Your task to perform on an android device: Open Reddit.com Image 0: 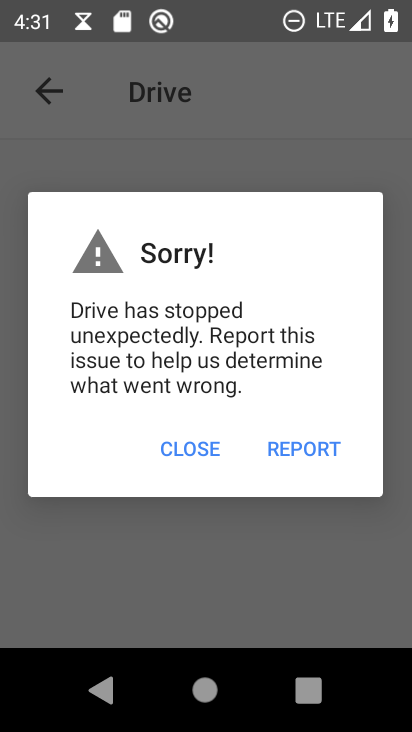
Step 0: press home button
Your task to perform on an android device: Open Reddit.com Image 1: 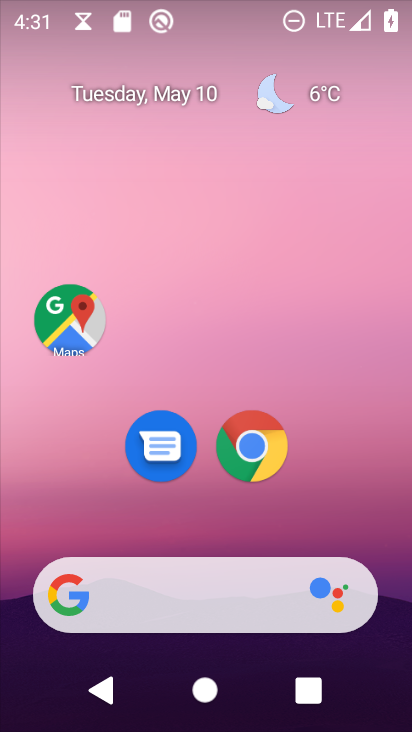
Step 1: click (265, 471)
Your task to perform on an android device: Open Reddit.com Image 2: 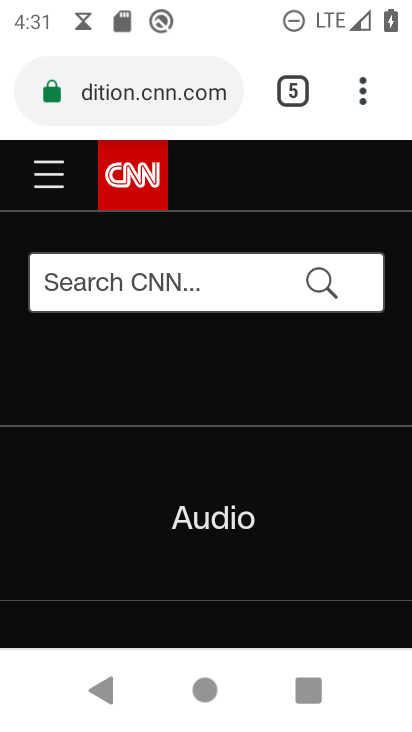
Step 2: click (294, 87)
Your task to perform on an android device: Open Reddit.com Image 3: 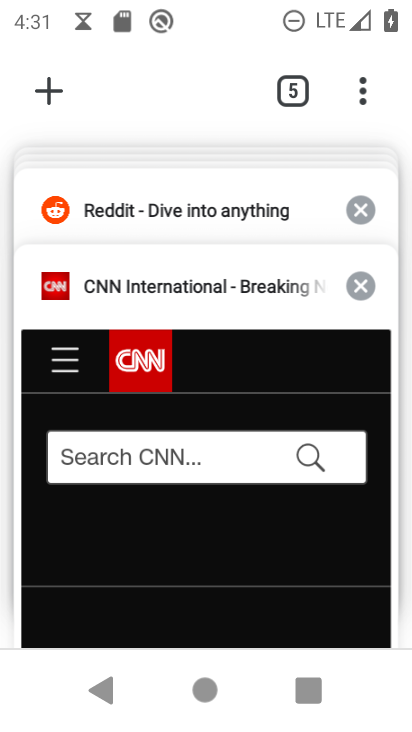
Step 3: click (175, 224)
Your task to perform on an android device: Open Reddit.com Image 4: 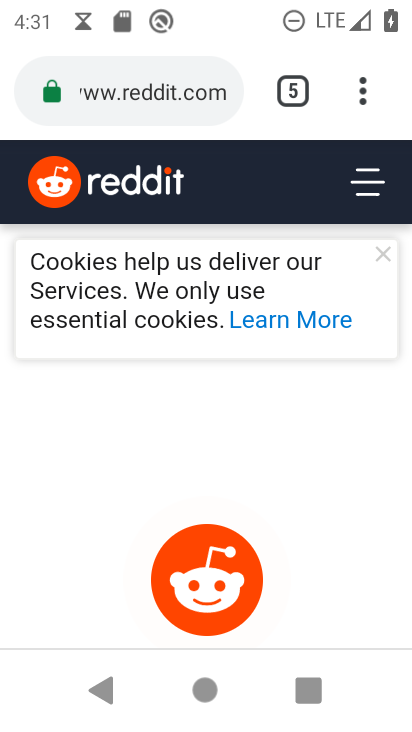
Step 4: task complete